Your task to perform on an android device: toggle show notifications on the lock screen Image 0: 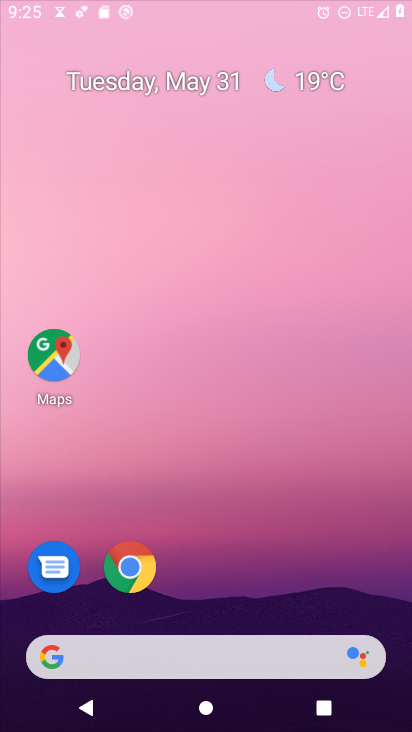
Step 0: click (151, 185)
Your task to perform on an android device: toggle show notifications on the lock screen Image 1: 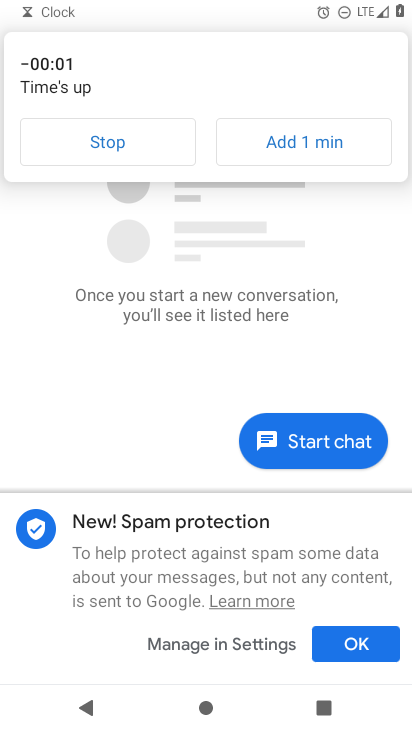
Step 1: press home button
Your task to perform on an android device: toggle show notifications on the lock screen Image 2: 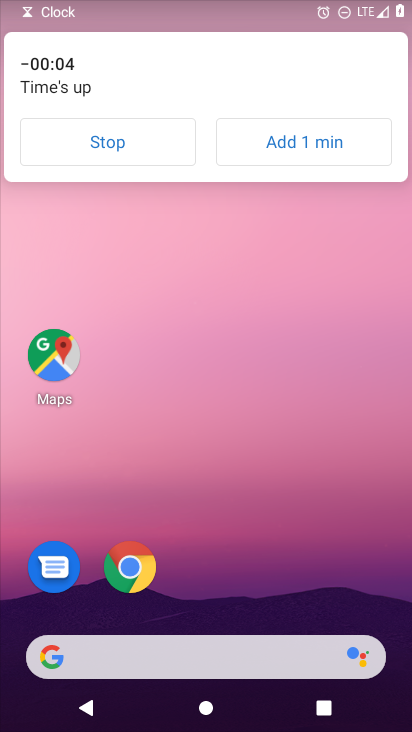
Step 2: click (114, 133)
Your task to perform on an android device: toggle show notifications on the lock screen Image 3: 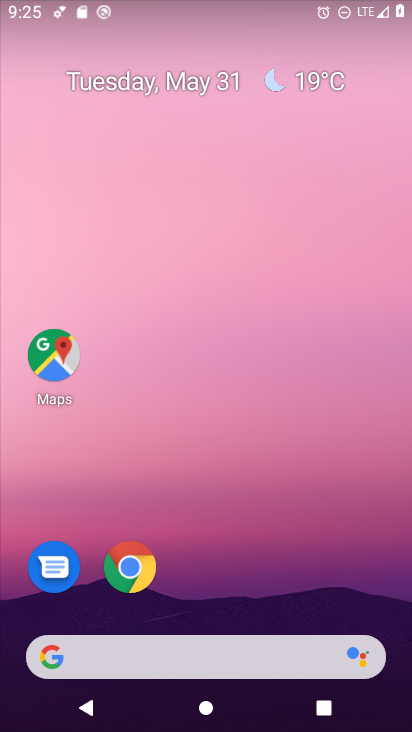
Step 3: drag from (170, 630) to (169, 243)
Your task to perform on an android device: toggle show notifications on the lock screen Image 4: 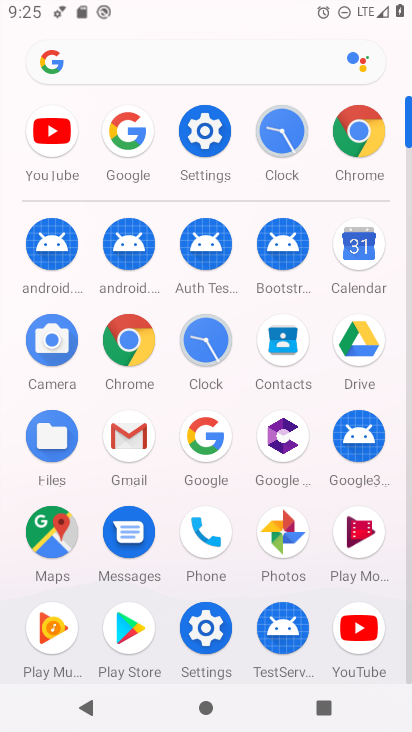
Step 4: click (213, 114)
Your task to perform on an android device: toggle show notifications on the lock screen Image 5: 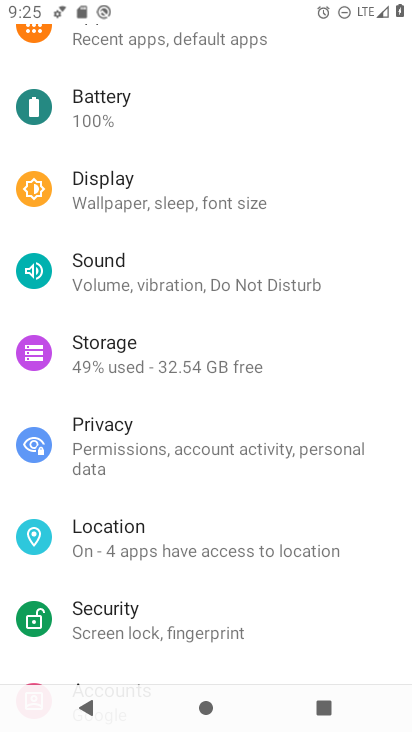
Step 5: click (124, 438)
Your task to perform on an android device: toggle show notifications on the lock screen Image 6: 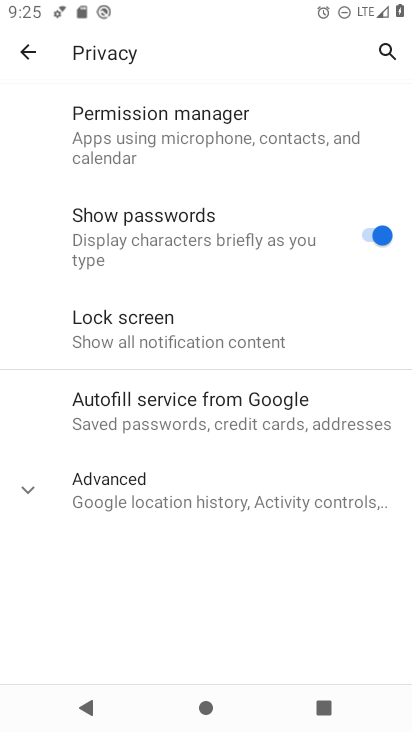
Step 6: click (113, 341)
Your task to perform on an android device: toggle show notifications on the lock screen Image 7: 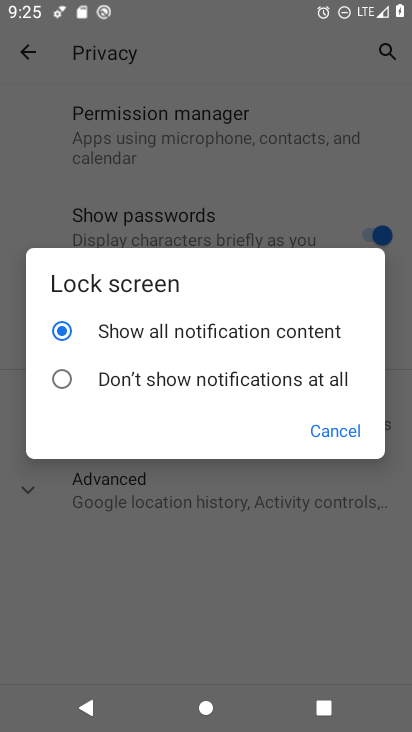
Step 7: click (295, 379)
Your task to perform on an android device: toggle show notifications on the lock screen Image 8: 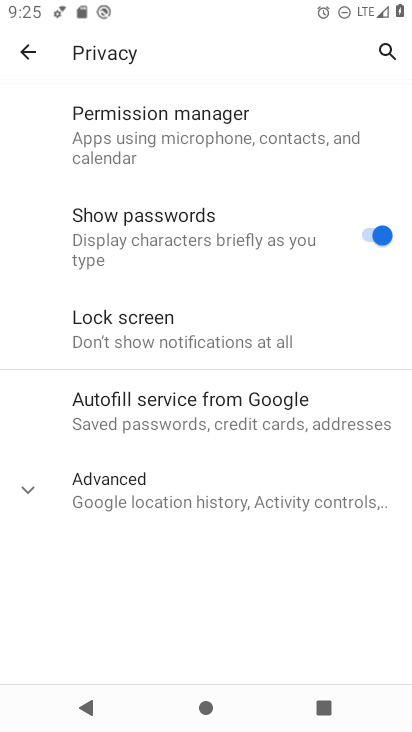
Step 8: task complete